Your task to perform on an android device: Open calendar and show me the first week of next month Image 0: 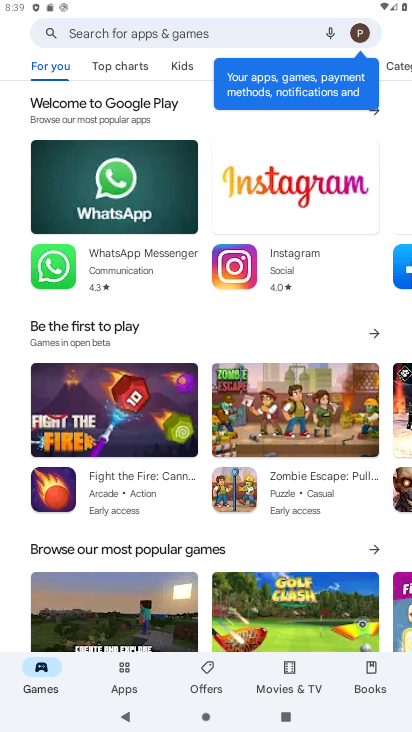
Step 0: press home button
Your task to perform on an android device: Open calendar and show me the first week of next month Image 1: 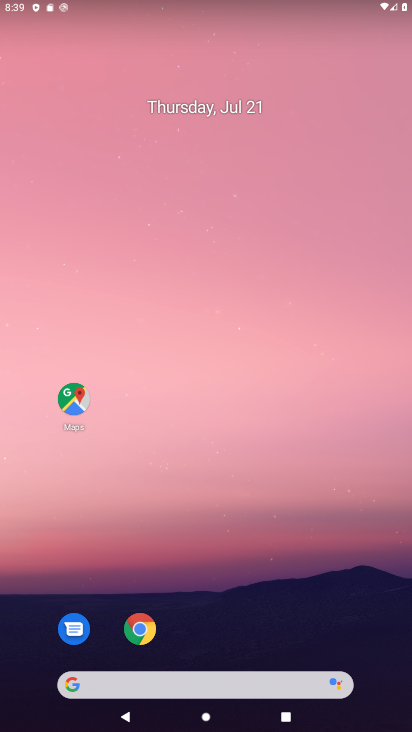
Step 1: click (185, 109)
Your task to perform on an android device: Open calendar and show me the first week of next month Image 2: 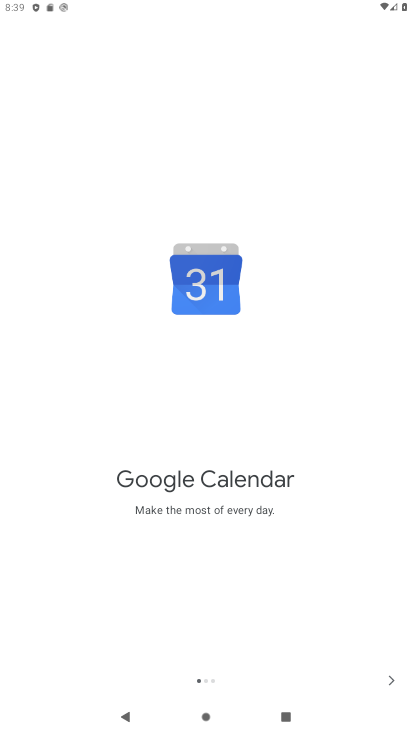
Step 2: click (392, 691)
Your task to perform on an android device: Open calendar and show me the first week of next month Image 3: 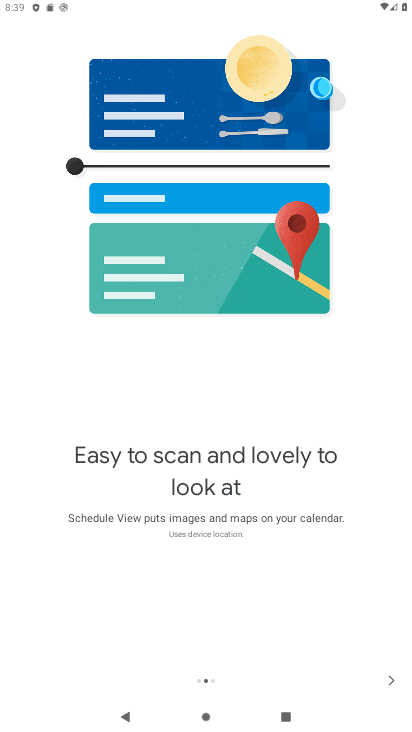
Step 3: click (392, 691)
Your task to perform on an android device: Open calendar and show me the first week of next month Image 4: 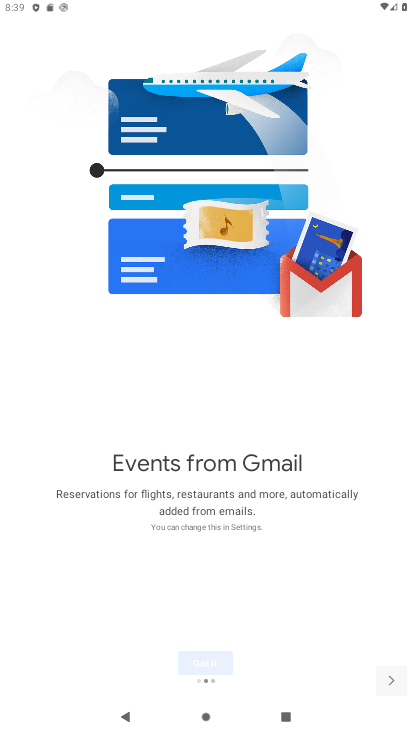
Step 4: click (392, 691)
Your task to perform on an android device: Open calendar and show me the first week of next month Image 5: 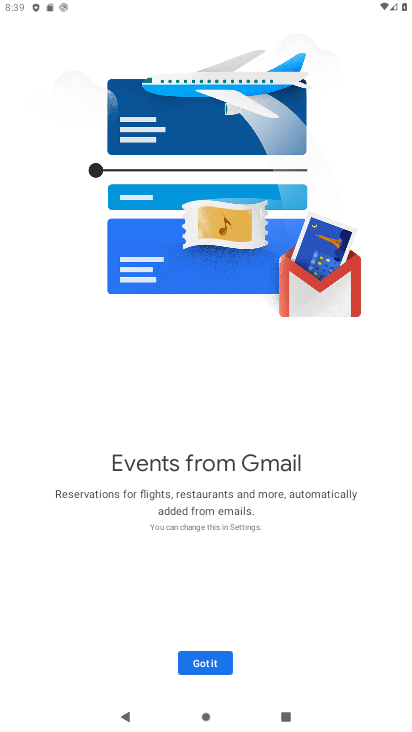
Step 5: click (392, 691)
Your task to perform on an android device: Open calendar and show me the first week of next month Image 6: 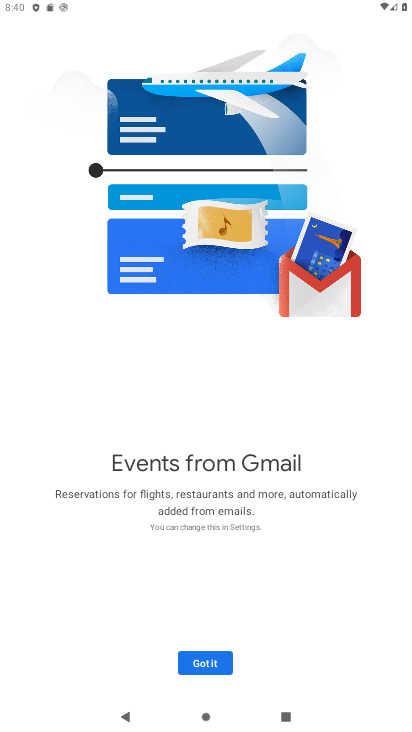
Step 6: click (200, 679)
Your task to perform on an android device: Open calendar and show me the first week of next month Image 7: 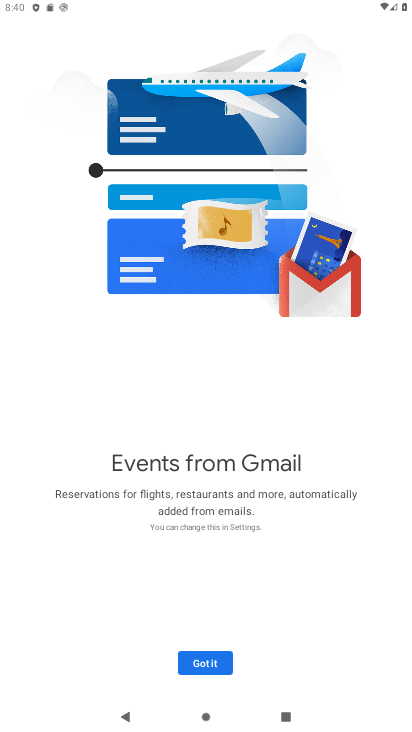
Step 7: click (204, 666)
Your task to perform on an android device: Open calendar and show me the first week of next month Image 8: 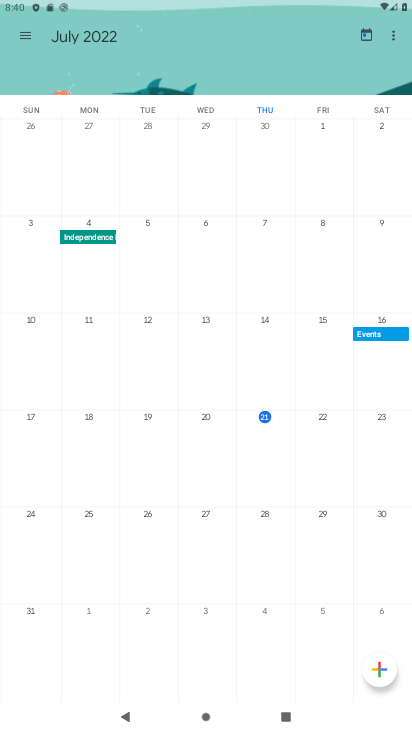
Step 8: click (86, 36)
Your task to perform on an android device: Open calendar and show me the first week of next month Image 9: 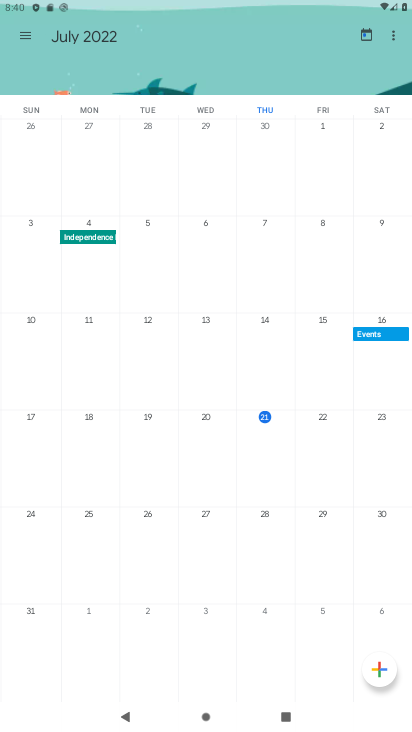
Step 9: click (86, 36)
Your task to perform on an android device: Open calendar and show me the first week of next month Image 10: 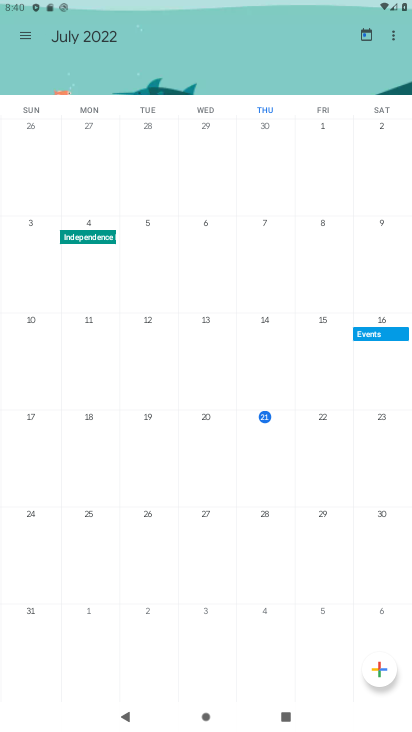
Step 10: click (19, 39)
Your task to perform on an android device: Open calendar and show me the first week of next month Image 11: 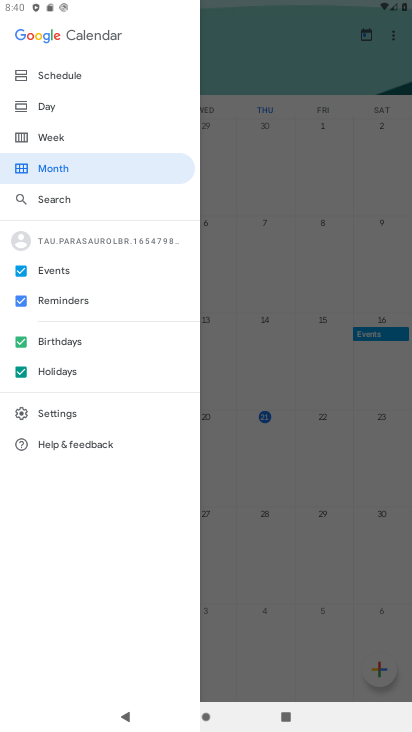
Step 11: click (74, 110)
Your task to perform on an android device: Open calendar and show me the first week of next month Image 12: 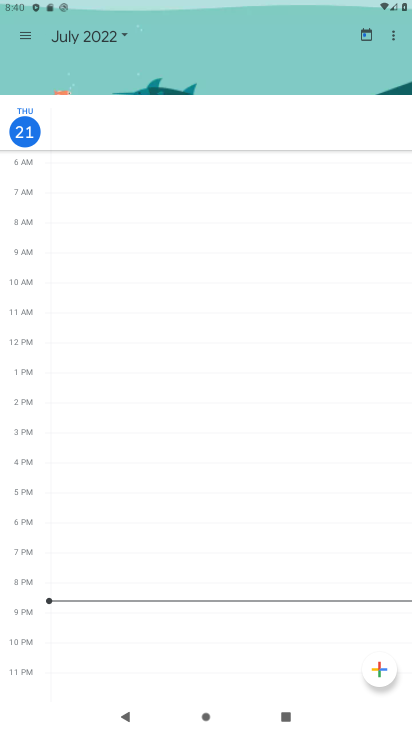
Step 12: click (99, 43)
Your task to perform on an android device: Open calendar and show me the first week of next month Image 13: 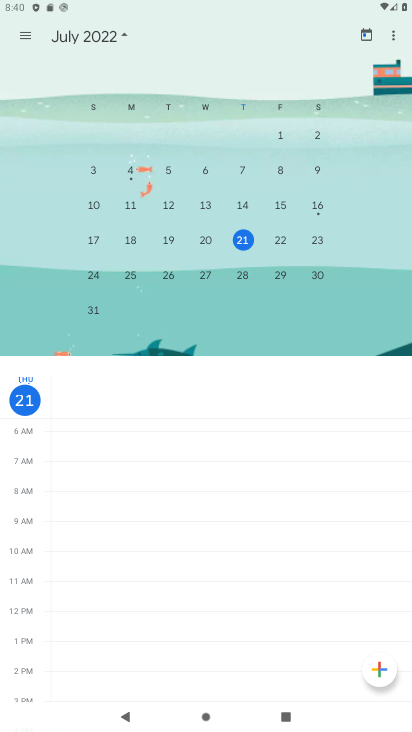
Step 13: task complete